Your task to perform on an android device: manage bookmarks in the chrome app Image 0: 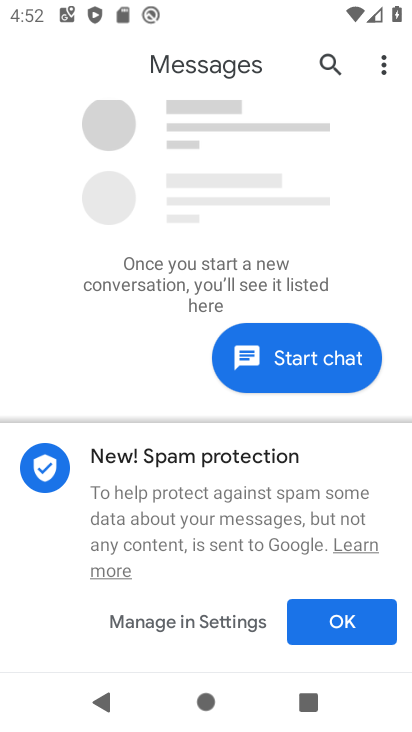
Step 0: press home button
Your task to perform on an android device: manage bookmarks in the chrome app Image 1: 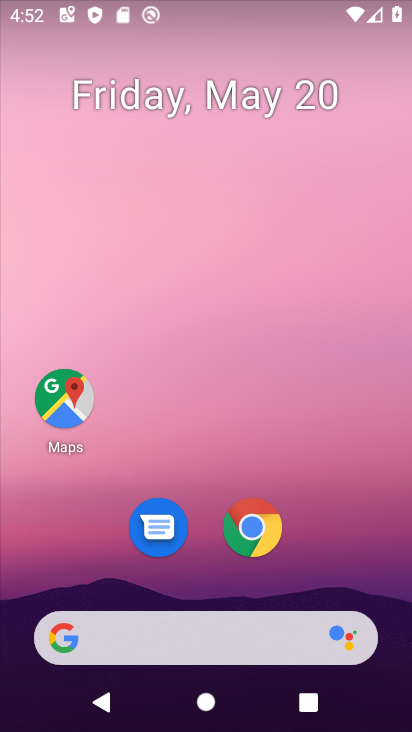
Step 1: click (243, 524)
Your task to perform on an android device: manage bookmarks in the chrome app Image 2: 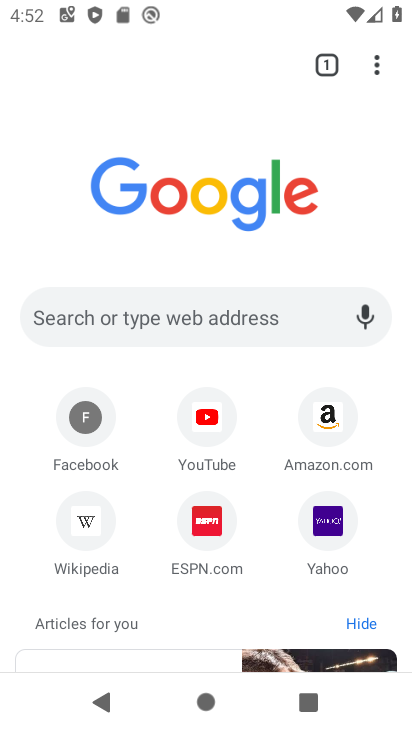
Step 2: click (382, 66)
Your task to perform on an android device: manage bookmarks in the chrome app Image 3: 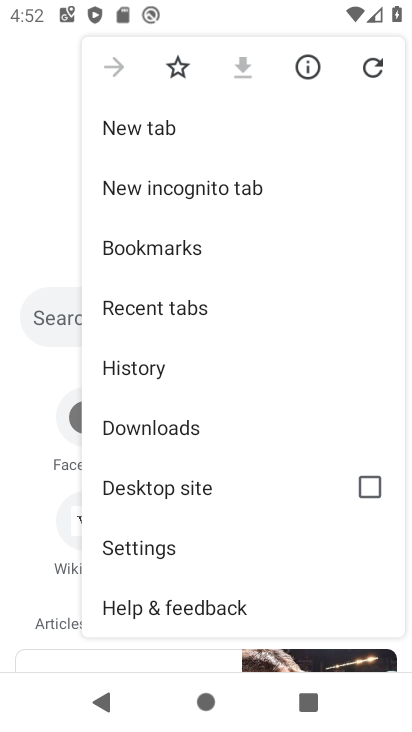
Step 3: click (153, 233)
Your task to perform on an android device: manage bookmarks in the chrome app Image 4: 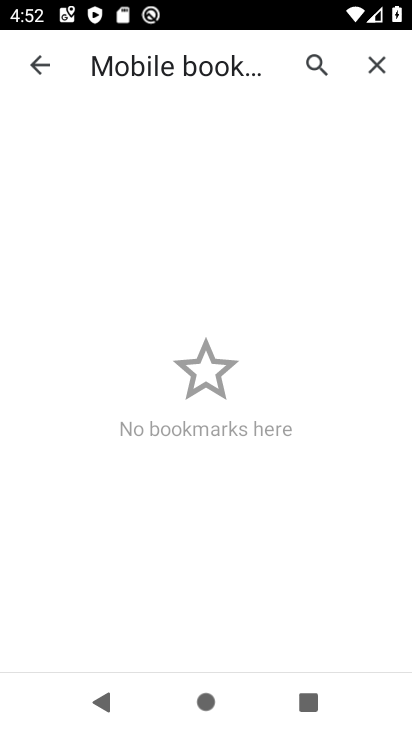
Step 4: task complete